Your task to perform on an android device: open app "Chime – Mobile Banking" (install if not already installed) Image 0: 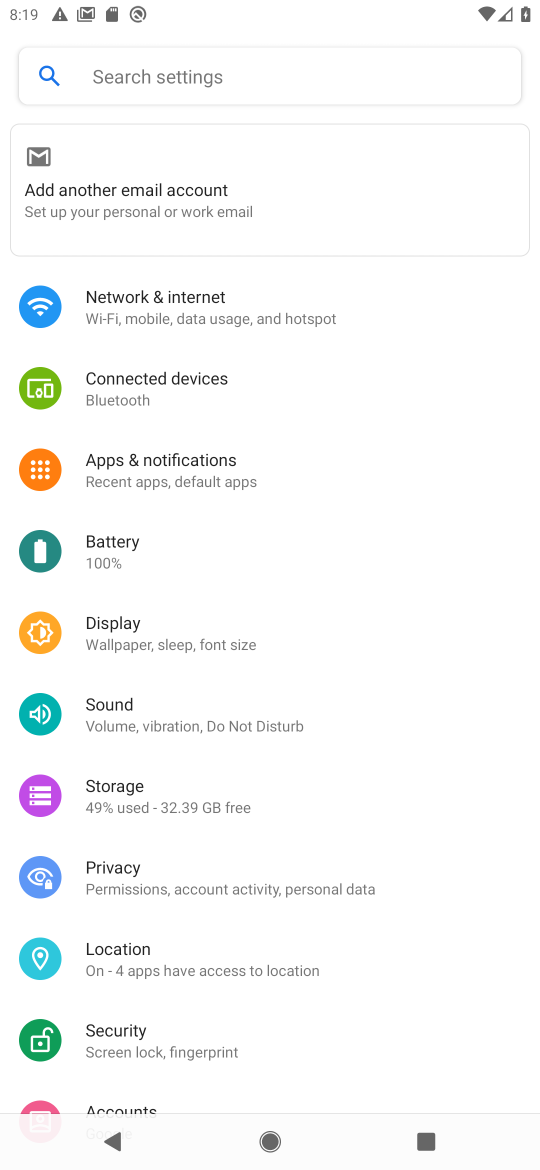
Step 0: press back button
Your task to perform on an android device: open app "Chime – Mobile Banking" (install if not already installed) Image 1: 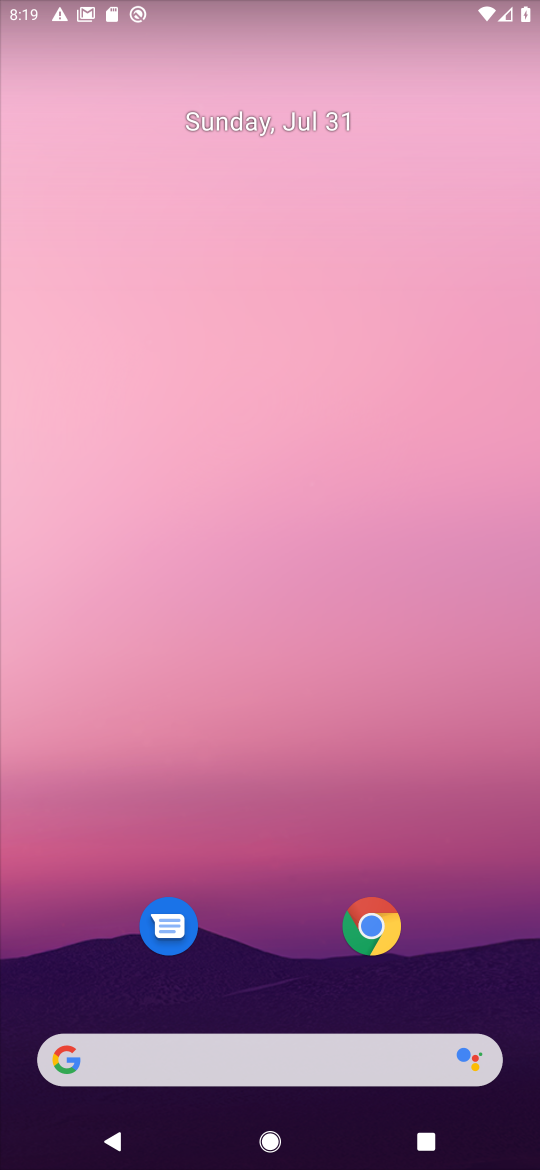
Step 1: drag from (258, 963) to (349, 7)
Your task to perform on an android device: open app "Chime – Mobile Banking" (install if not already installed) Image 2: 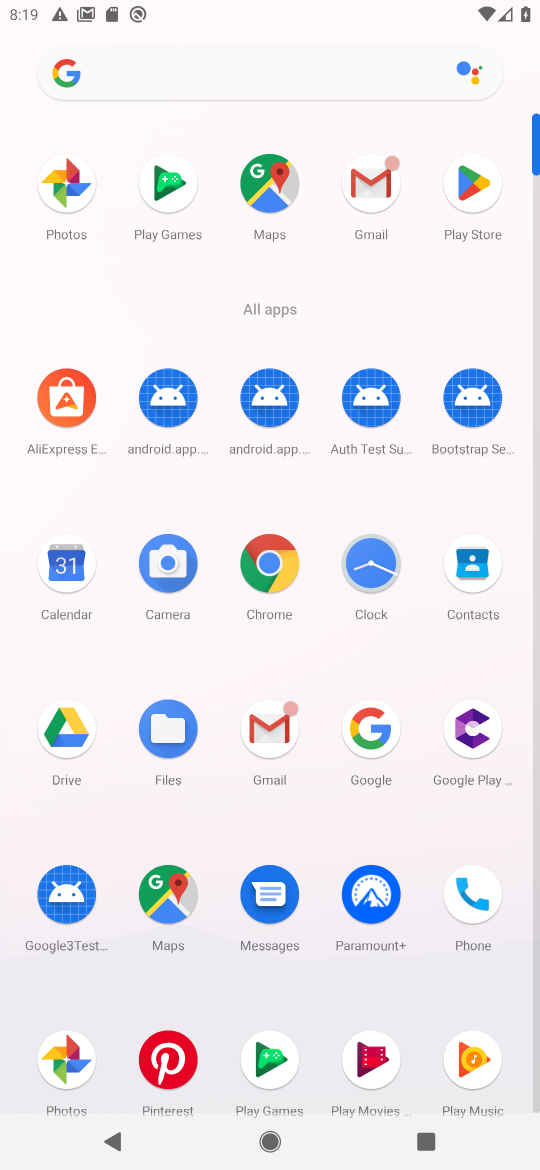
Step 2: click (465, 193)
Your task to perform on an android device: open app "Chime – Mobile Banking" (install if not already installed) Image 3: 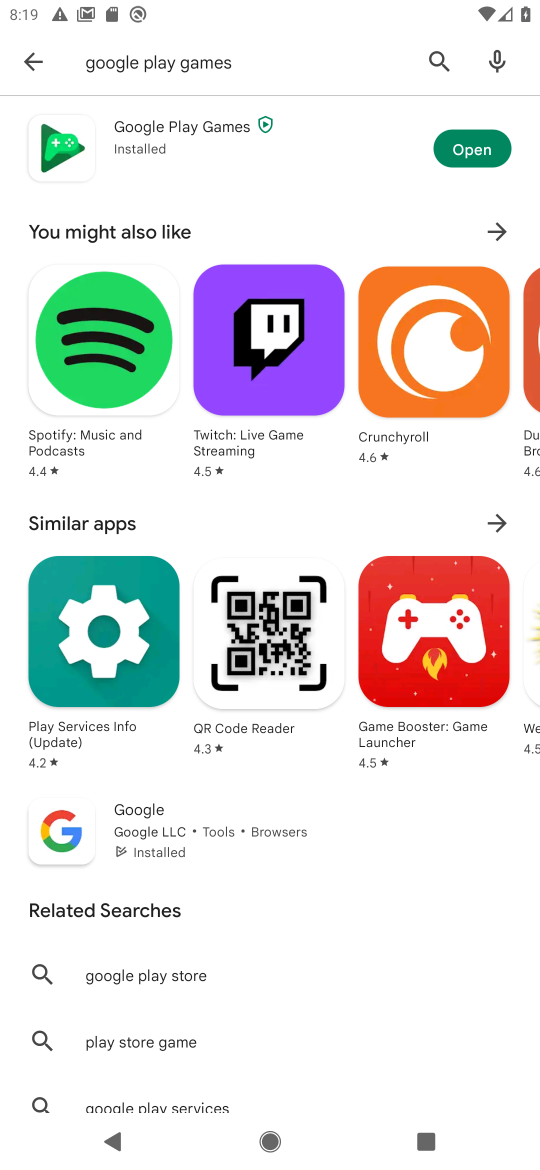
Step 3: click (415, 69)
Your task to perform on an android device: open app "Chime – Mobile Banking" (install if not already installed) Image 4: 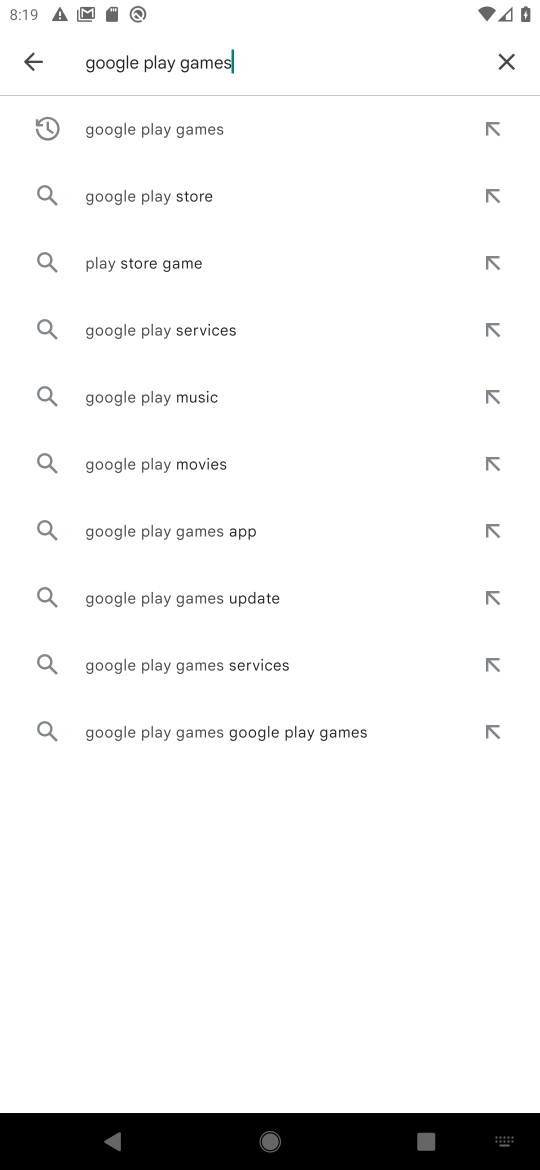
Step 4: click (505, 43)
Your task to perform on an android device: open app "Chime – Mobile Banking" (install if not already installed) Image 5: 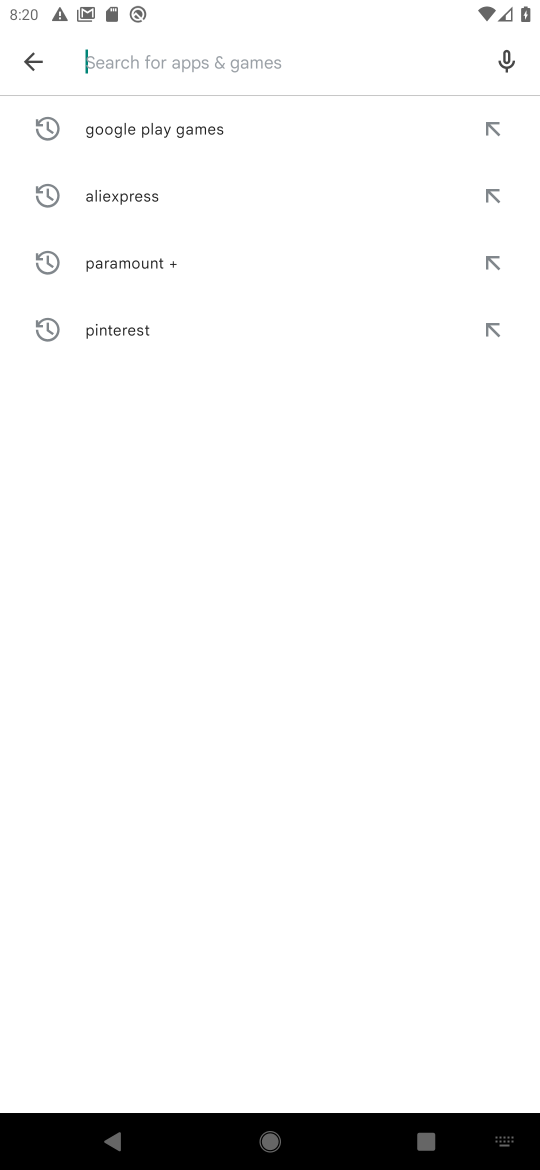
Step 5: click (186, 82)
Your task to perform on an android device: open app "Chime – Mobile Banking" (install if not already installed) Image 6: 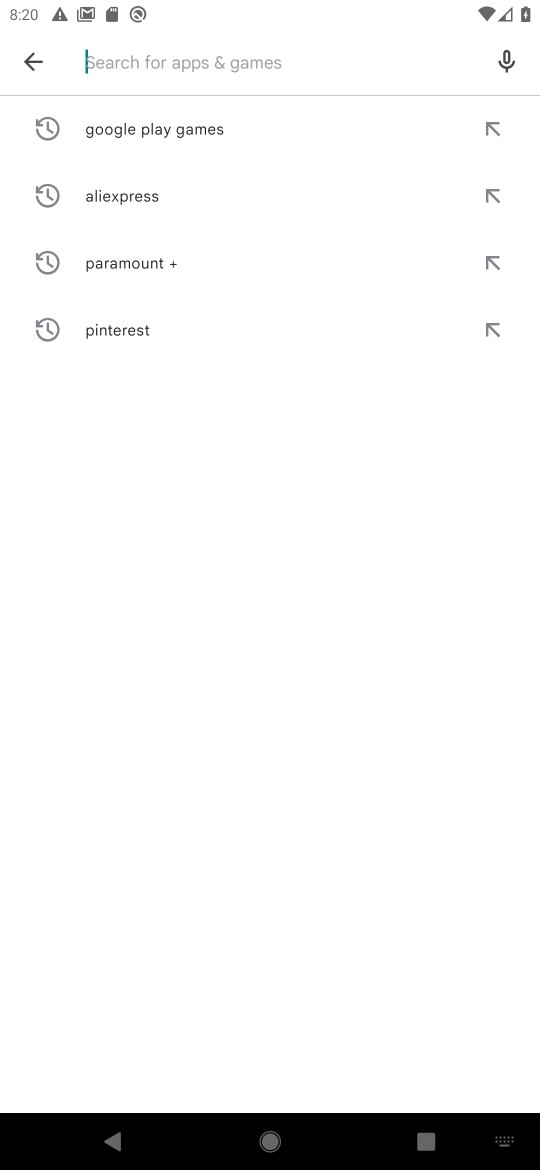
Step 6: type "chime"
Your task to perform on an android device: open app "Chime – Mobile Banking" (install if not already installed) Image 7: 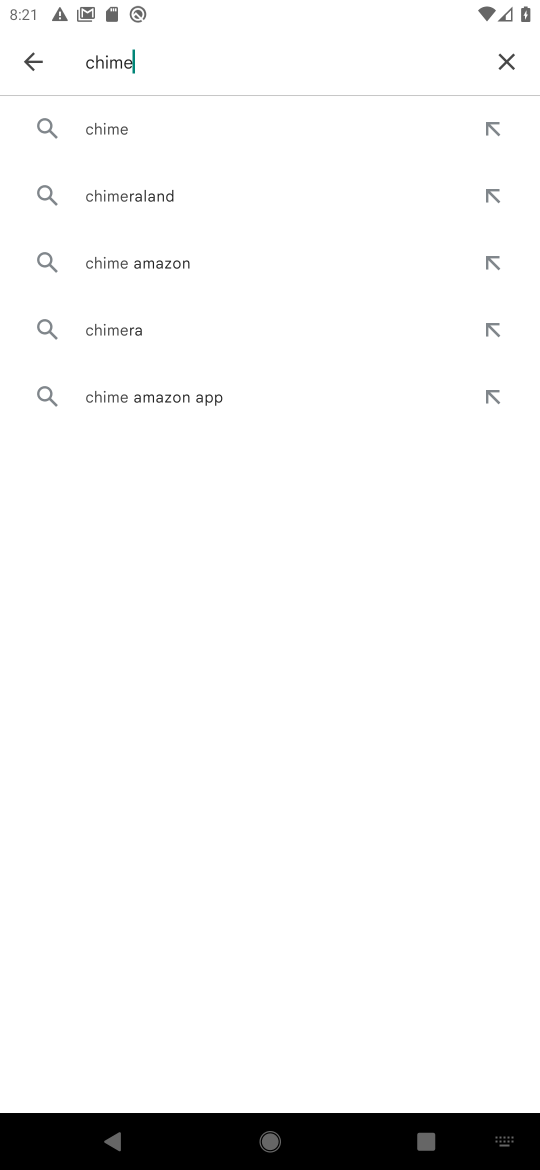
Step 7: click (147, 136)
Your task to perform on an android device: open app "Chime – Mobile Banking" (install if not already installed) Image 8: 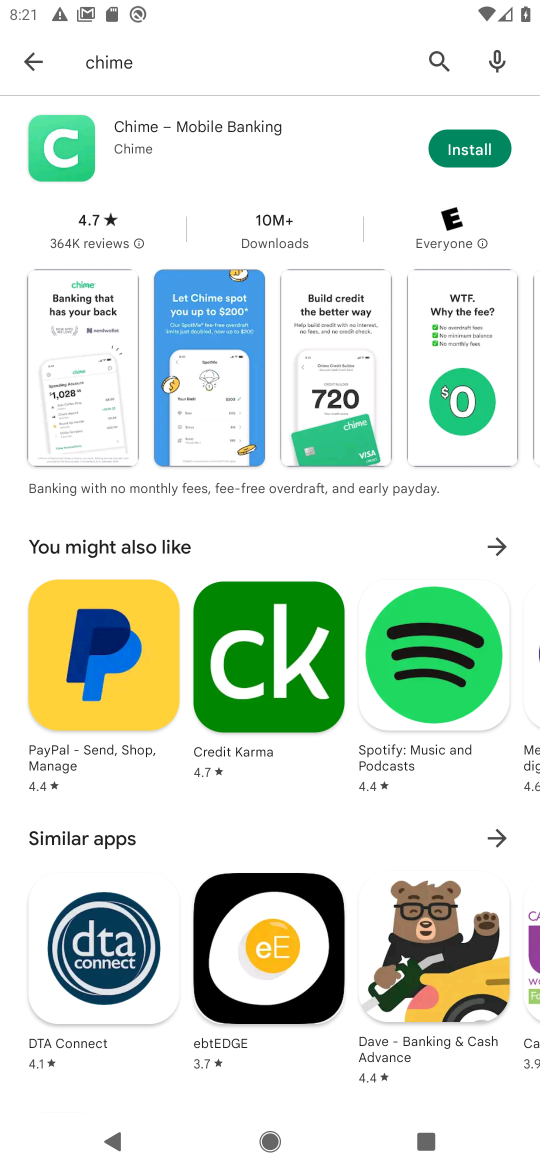
Step 8: click (470, 150)
Your task to perform on an android device: open app "Chime – Mobile Banking" (install if not already installed) Image 9: 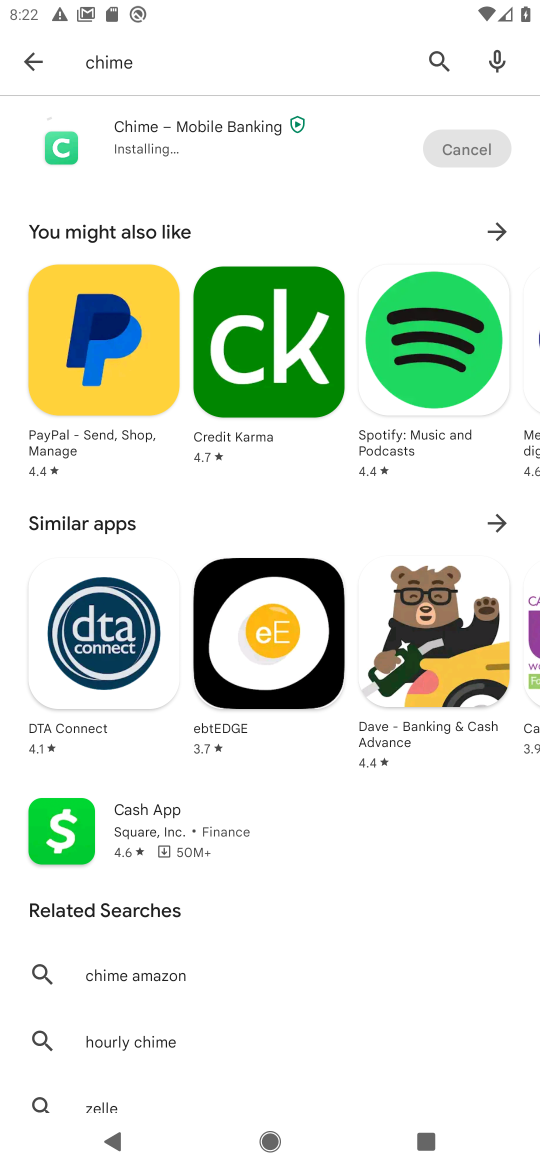
Step 9: click (29, 54)
Your task to perform on an android device: open app "Chime – Mobile Banking" (install if not already installed) Image 10: 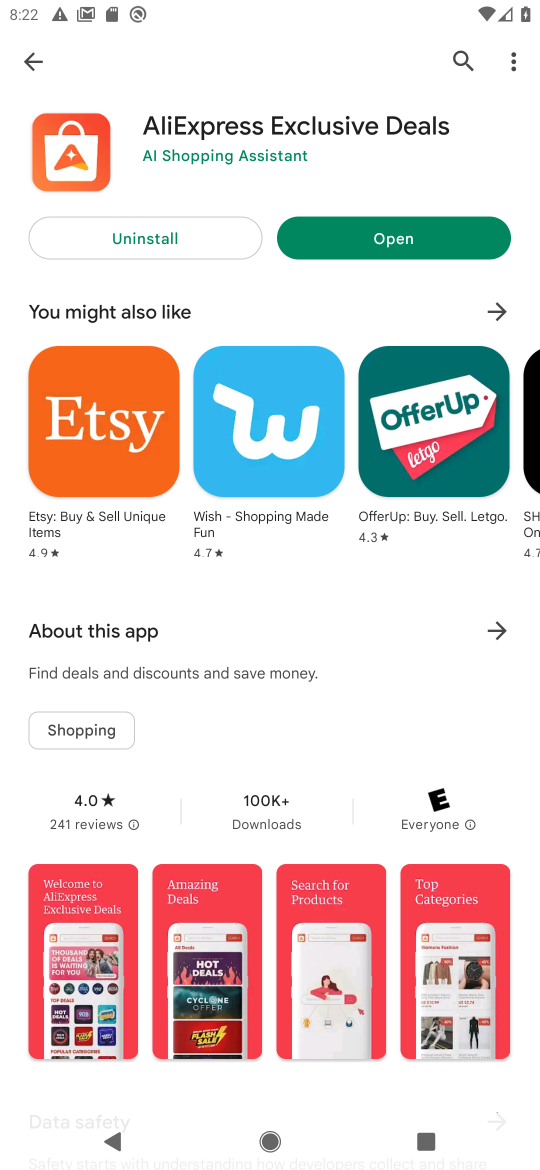
Step 10: click (460, 67)
Your task to perform on an android device: open app "Chime – Mobile Banking" (install if not already installed) Image 11: 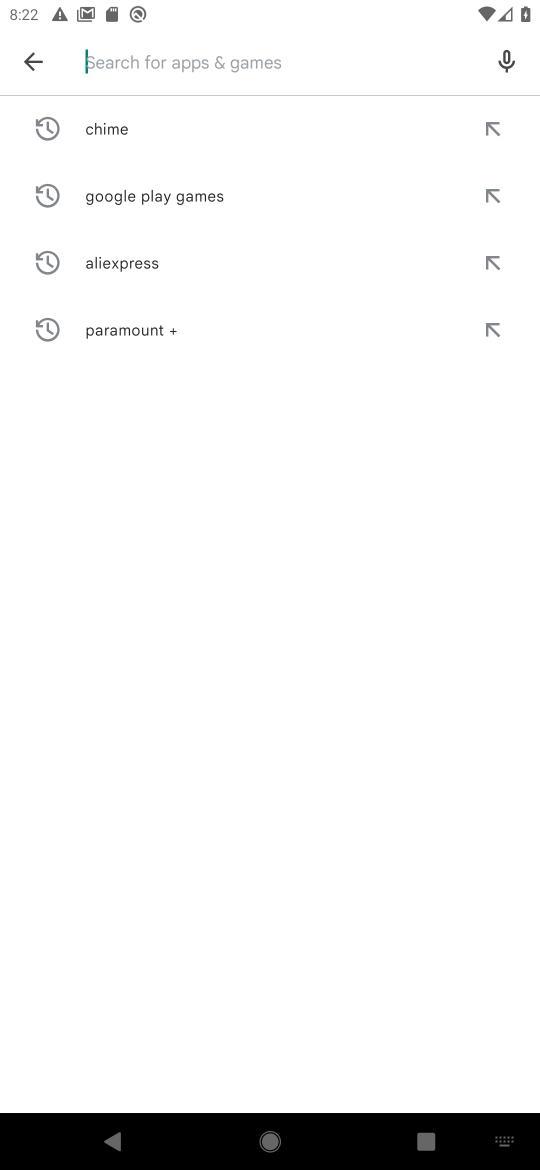
Step 11: click (150, 133)
Your task to perform on an android device: open app "Chime – Mobile Banking" (install if not already installed) Image 12: 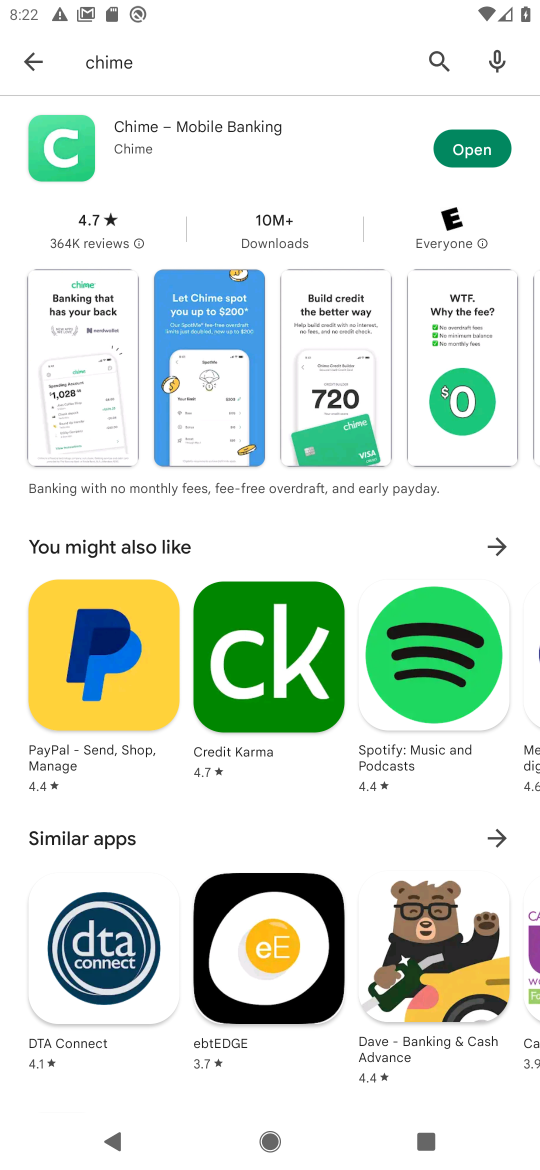
Step 12: click (469, 152)
Your task to perform on an android device: open app "Chime – Mobile Banking" (install if not already installed) Image 13: 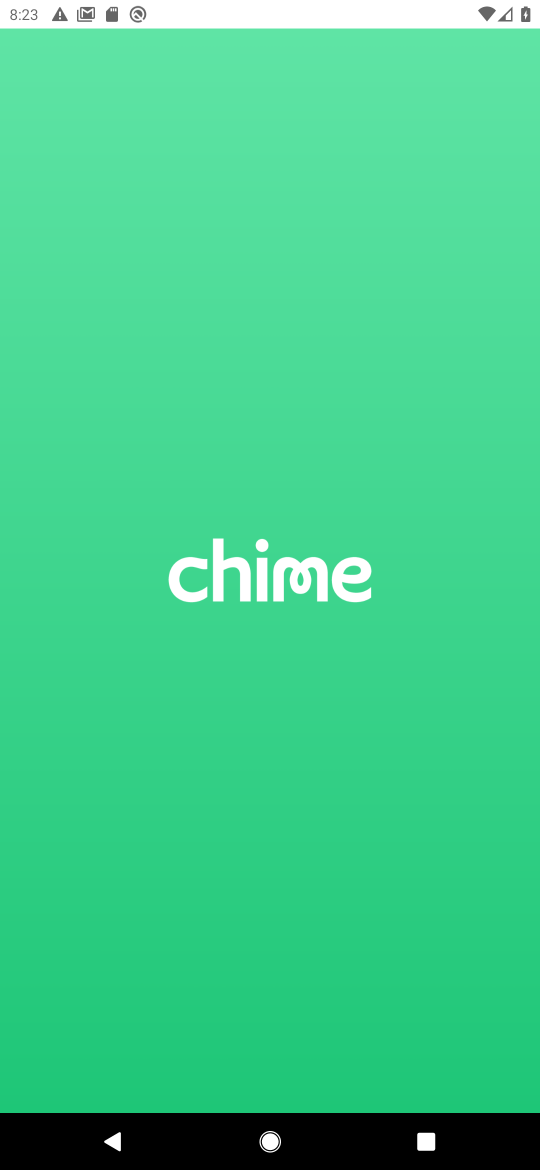
Step 13: task complete